Your task to perform on an android device: turn off data saver in the chrome app Image 0: 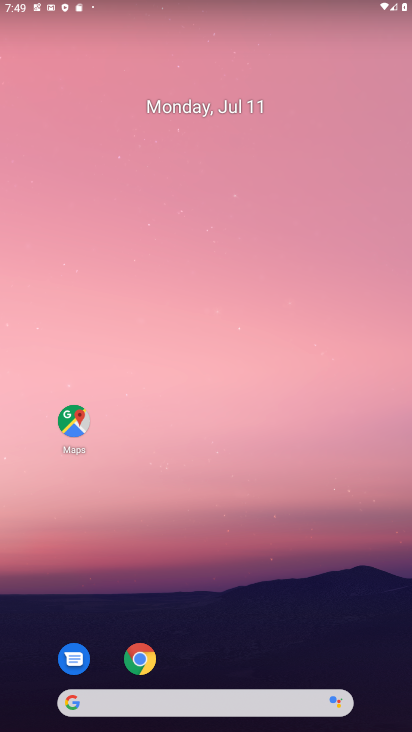
Step 0: drag from (231, 715) to (381, 347)
Your task to perform on an android device: turn off data saver in the chrome app Image 1: 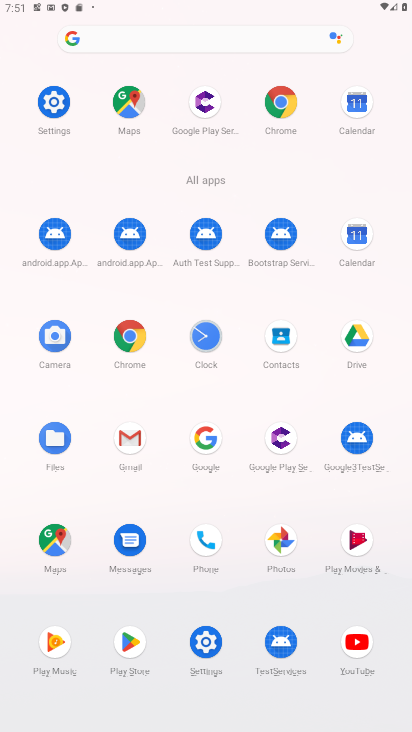
Step 1: click (283, 96)
Your task to perform on an android device: turn off data saver in the chrome app Image 2: 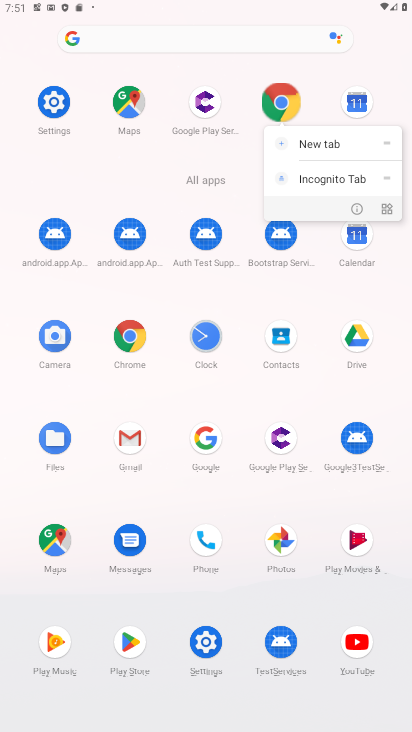
Step 2: click (286, 110)
Your task to perform on an android device: turn off data saver in the chrome app Image 3: 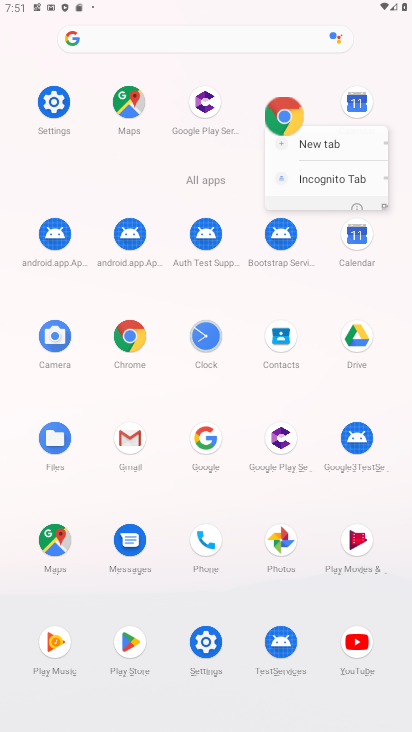
Step 3: click (286, 110)
Your task to perform on an android device: turn off data saver in the chrome app Image 4: 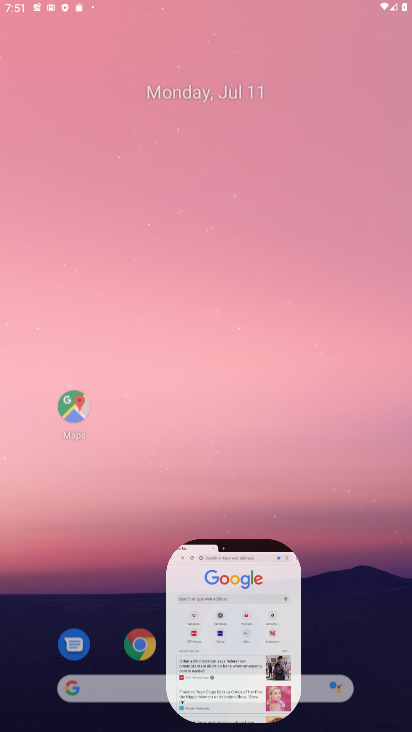
Step 4: click (286, 110)
Your task to perform on an android device: turn off data saver in the chrome app Image 5: 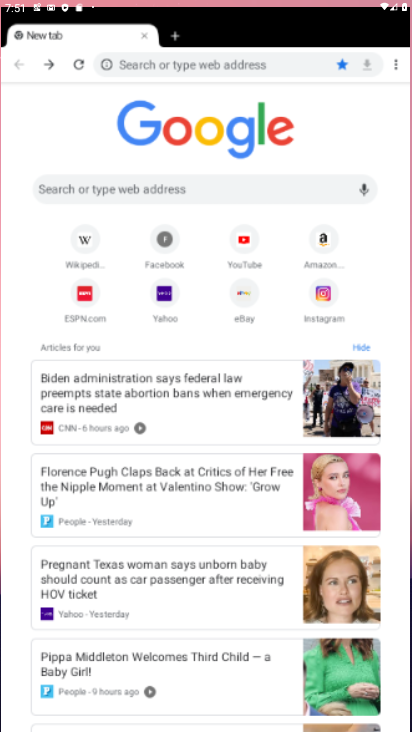
Step 5: click (286, 110)
Your task to perform on an android device: turn off data saver in the chrome app Image 6: 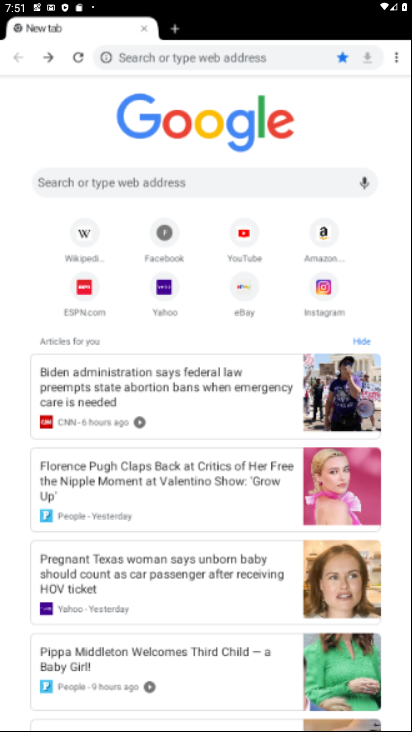
Step 6: click (287, 108)
Your task to perform on an android device: turn off data saver in the chrome app Image 7: 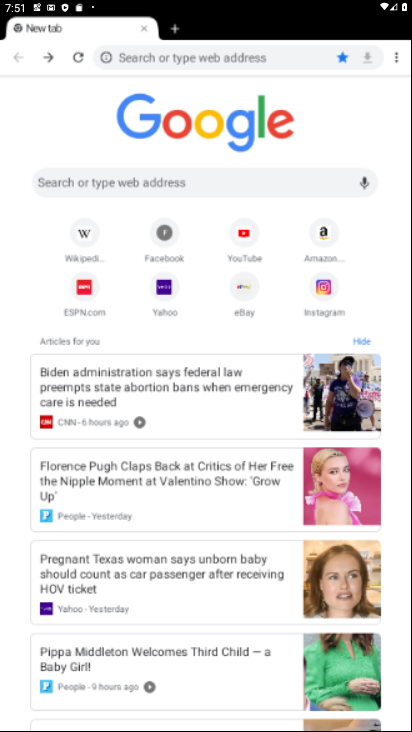
Step 7: click (290, 106)
Your task to perform on an android device: turn off data saver in the chrome app Image 8: 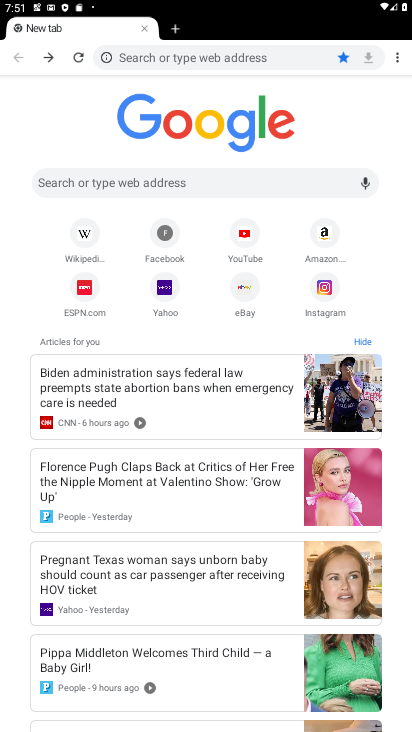
Step 8: click (396, 47)
Your task to perform on an android device: turn off data saver in the chrome app Image 9: 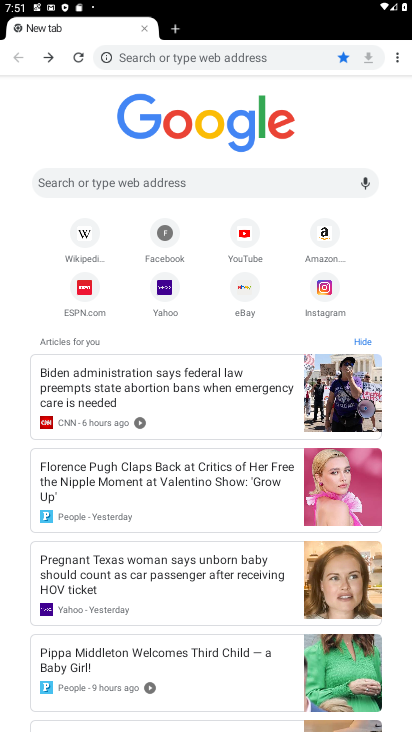
Step 9: click (396, 47)
Your task to perform on an android device: turn off data saver in the chrome app Image 10: 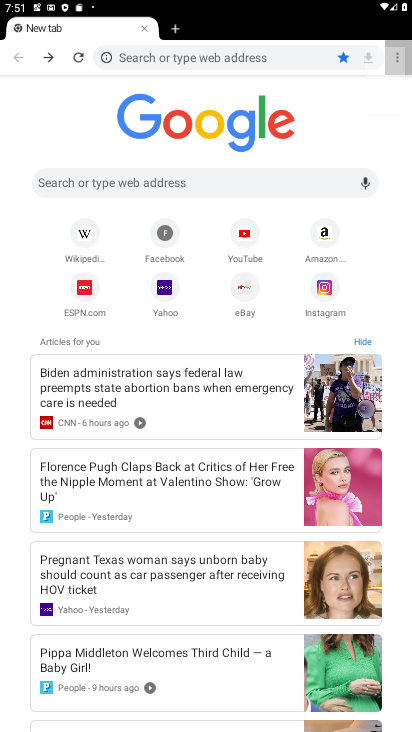
Step 10: click (395, 48)
Your task to perform on an android device: turn off data saver in the chrome app Image 11: 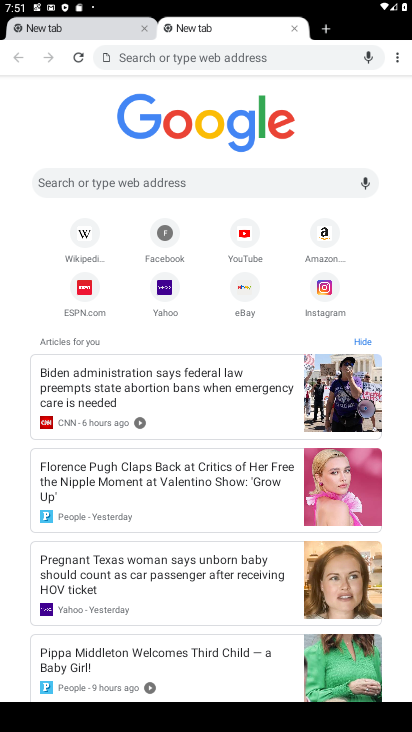
Step 11: drag from (391, 61) to (267, 259)
Your task to perform on an android device: turn off data saver in the chrome app Image 12: 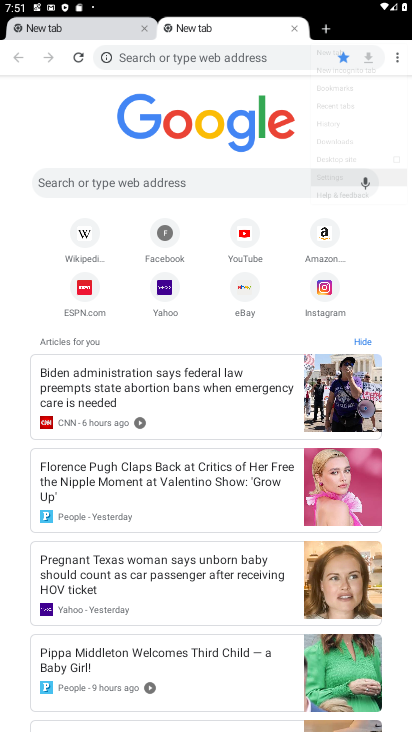
Step 12: click (267, 259)
Your task to perform on an android device: turn off data saver in the chrome app Image 13: 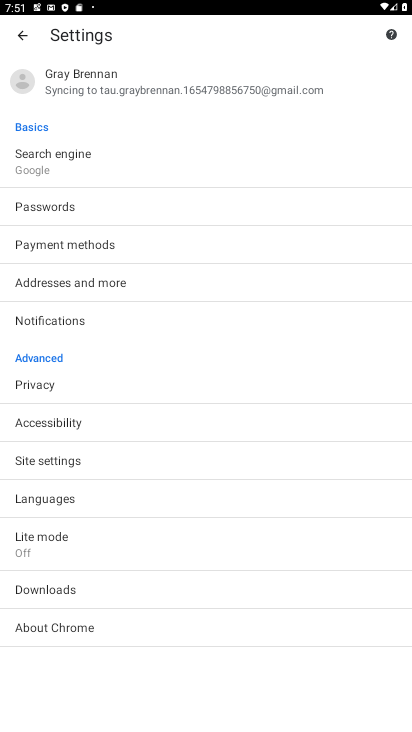
Step 13: drag from (150, 543) to (150, 154)
Your task to perform on an android device: turn off data saver in the chrome app Image 14: 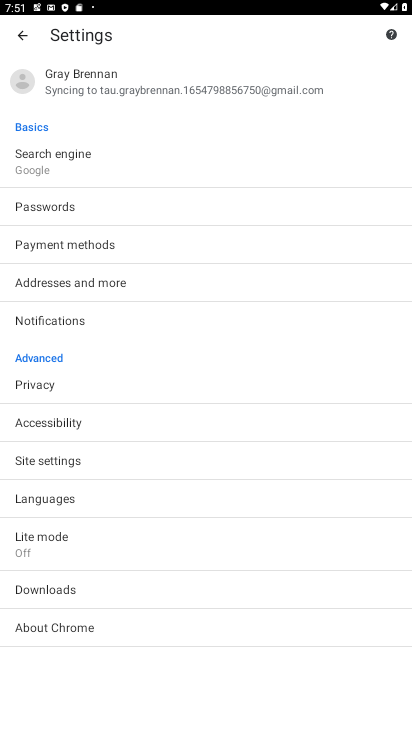
Step 14: drag from (121, 439) to (137, 256)
Your task to perform on an android device: turn off data saver in the chrome app Image 15: 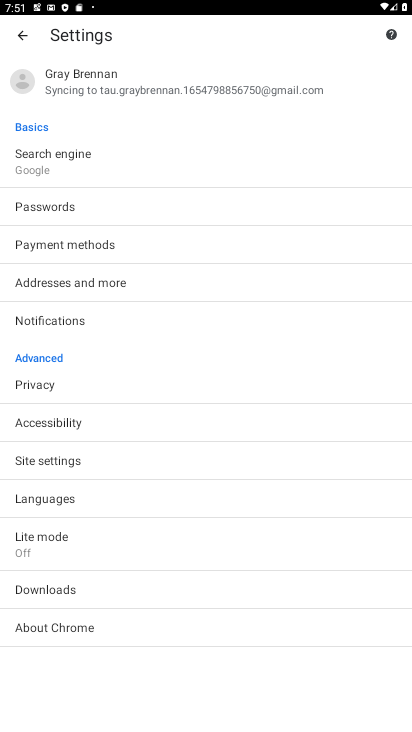
Step 15: click (47, 542)
Your task to perform on an android device: turn off data saver in the chrome app Image 16: 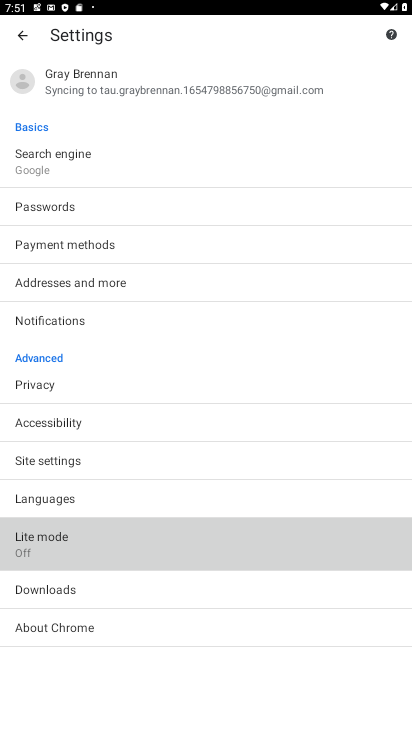
Step 16: click (47, 542)
Your task to perform on an android device: turn off data saver in the chrome app Image 17: 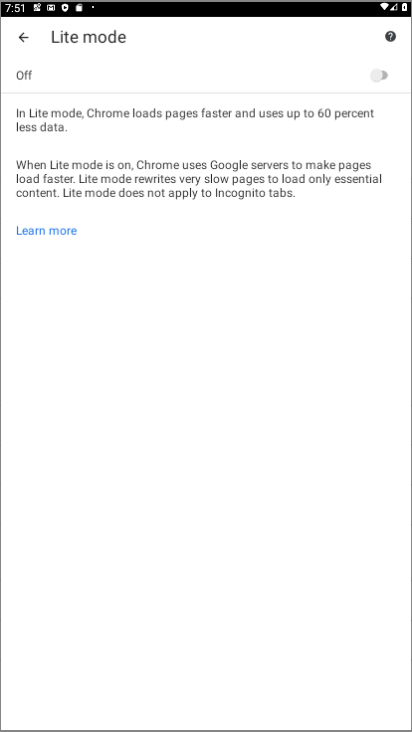
Step 17: click (46, 542)
Your task to perform on an android device: turn off data saver in the chrome app Image 18: 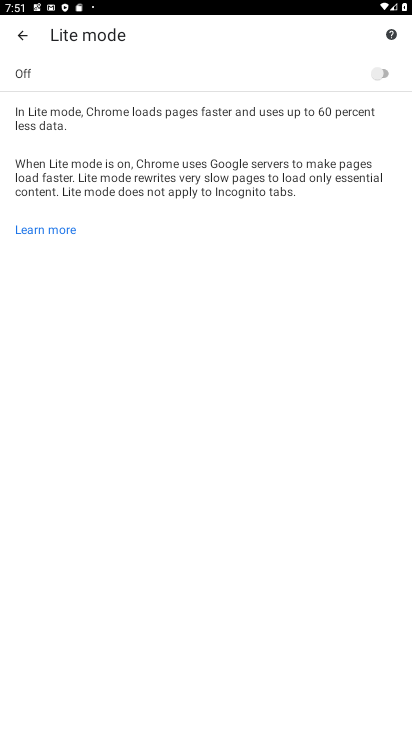
Step 18: click (45, 543)
Your task to perform on an android device: turn off data saver in the chrome app Image 19: 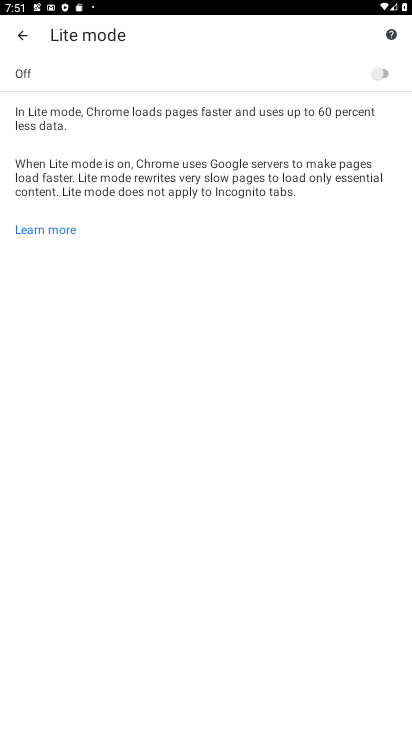
Step 19: task complete